Your task to perform on an android device: see tabs open on other devices in the chrome app Image 0: 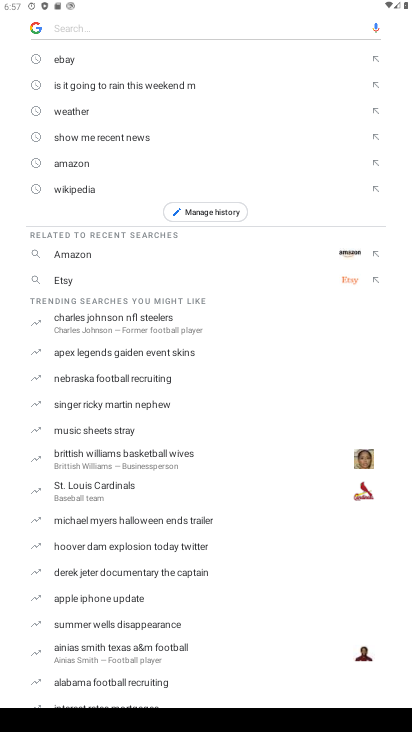
Step 0: press home button
Your task to perform on an android device: see tabs open on other devices in the chrome app Image 1: 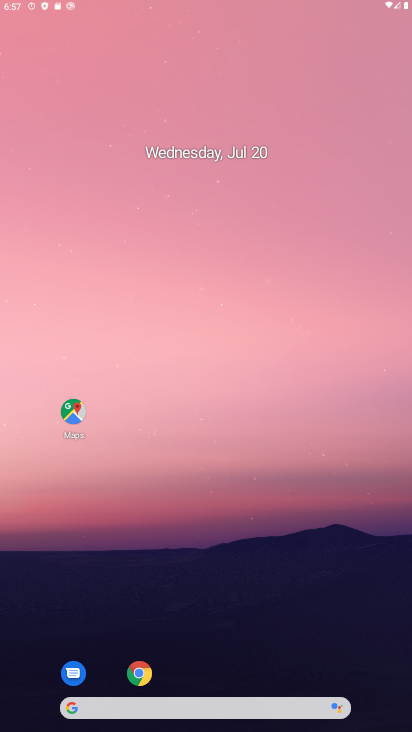
Step 1: drag from (390, 668) to (224, 35)
Your task to perform on an android device: see tabs open on other devices in the chrome app Image 2: 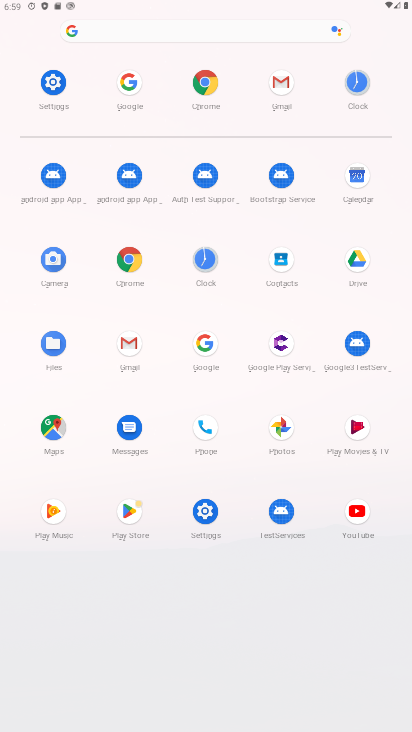
Step 2: click (119, 261)
Your task to perform on an android device: see tabs open on other devices in the chrome app Image 3: 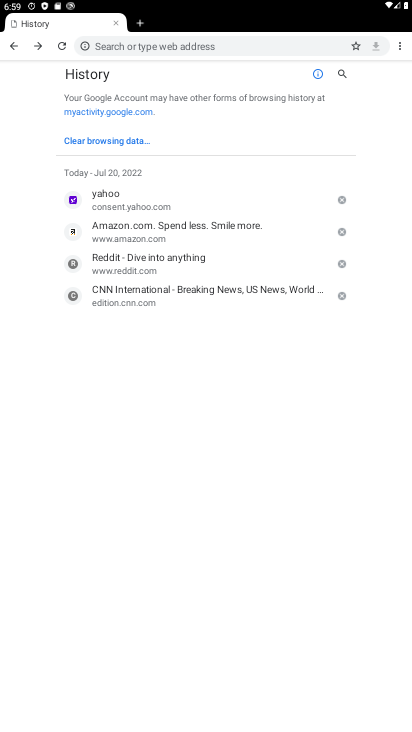
Step 3: task complete